Your task to perform on an android device: turn notification dots on Image 0: 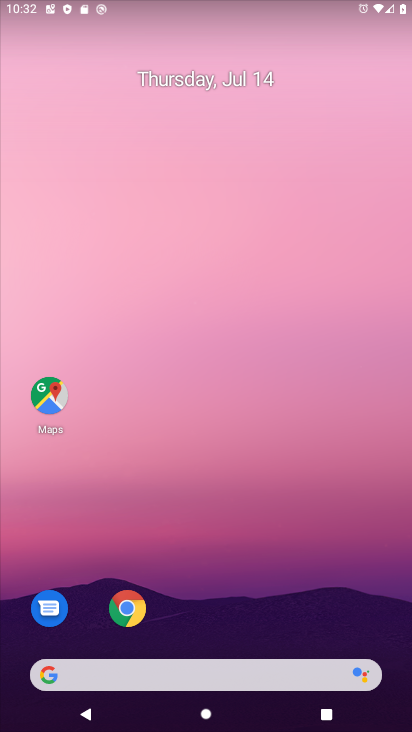
Step 0: drag from (233, 725) to (238, 519)
Your task to perform on an android device: turn notification dots on Image 1: 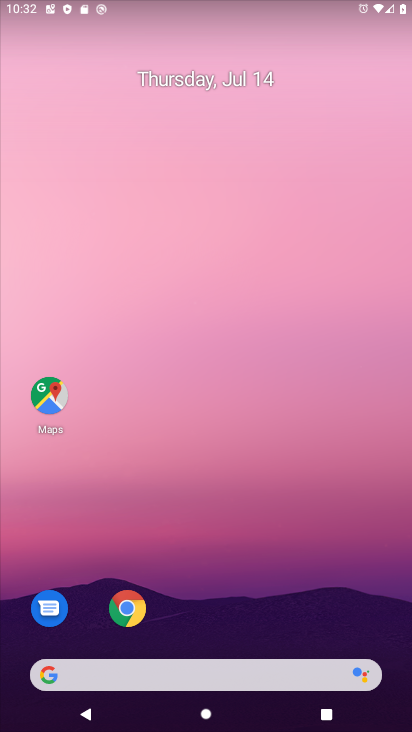
Step 1: drag from (243, 719) to (233, 140)
Your task to perform on an android device: turn notification dots on Image 2: 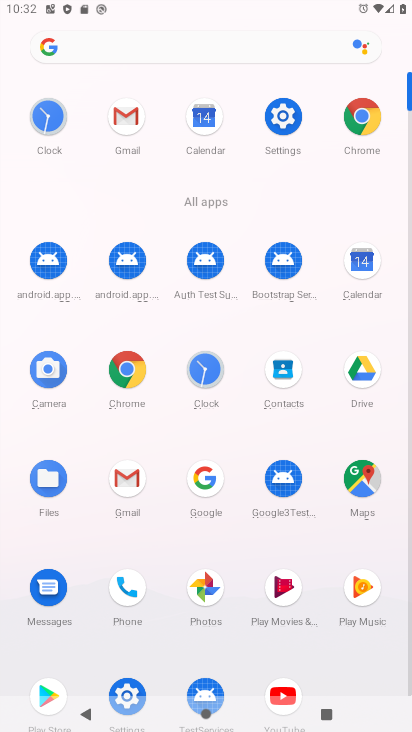
Step 2: click (277, 121)
Your task to perform on an android device: turn notification dots on Image 3: 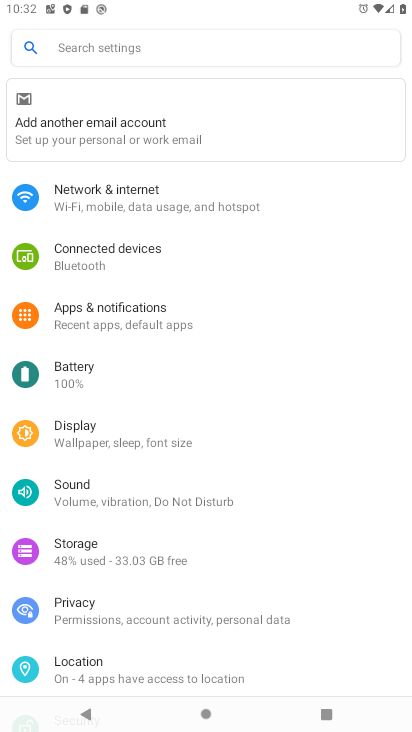
Step 3: click (97, 316)
Your task to perform on an android device: turn notification dots on Image 4: 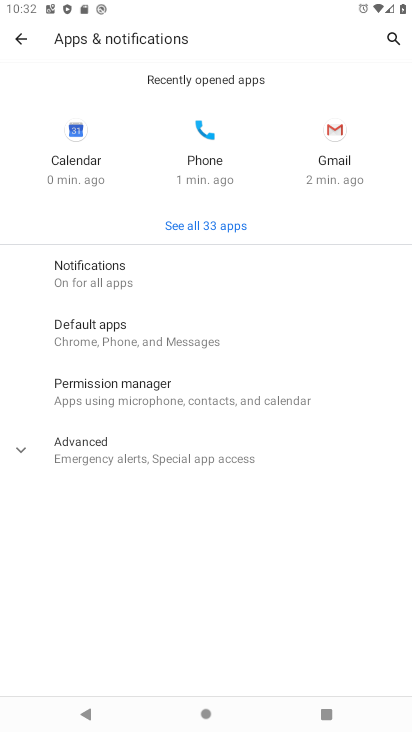
Step 4: click (77, 275)
Your task to perform on an android device: turn notification dots on Image 5: 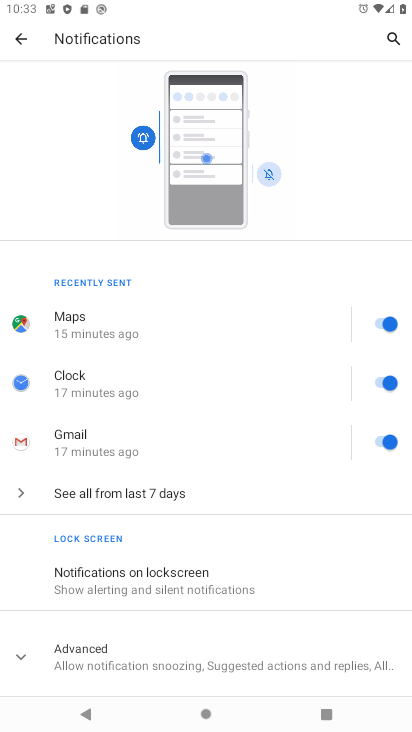
Step 5: click (106, 646)
Your task to perform on an android device: turn notification dots on Image 6: 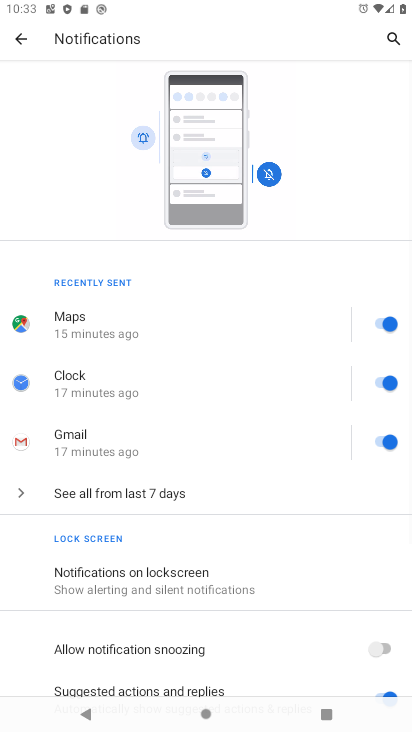
Step 6: drag from (236, 683) to (242, 366)
Your task to perform on an android device: turn notification dots on Image 7: 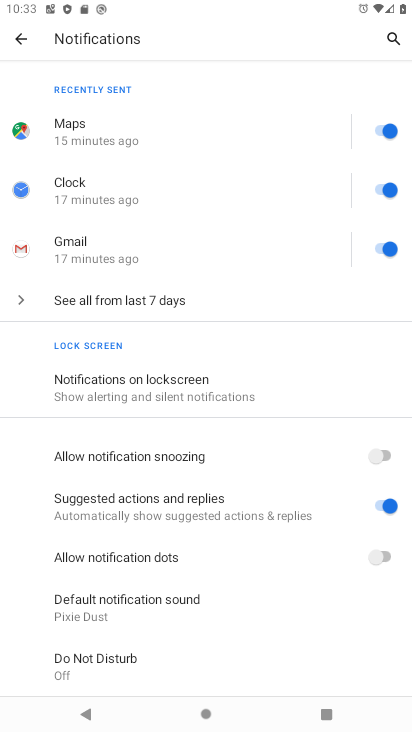
Step 7: click (385, 557)
Your task to perform on an android device: turn notification dots on Image 8: 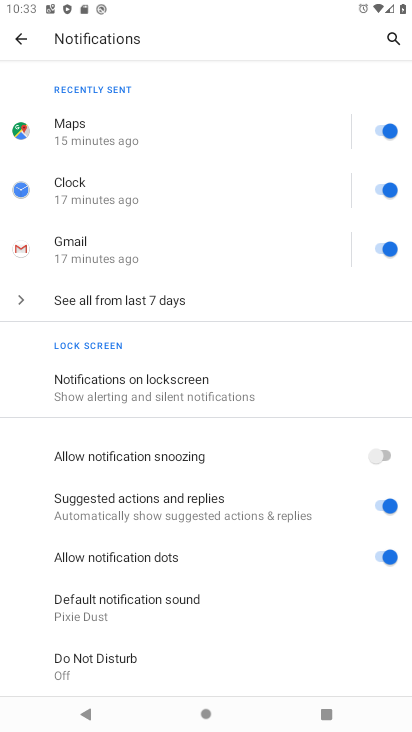
Step 8: task complete